Your task to perform on an android device: turn off location Image 0: 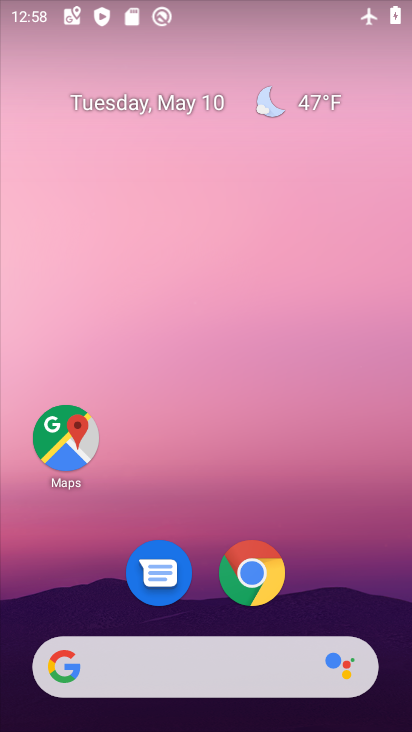
Step 0: drag from (276, 471) to (308, 393)
Your task to perform on an android device: turn off location Image 1: 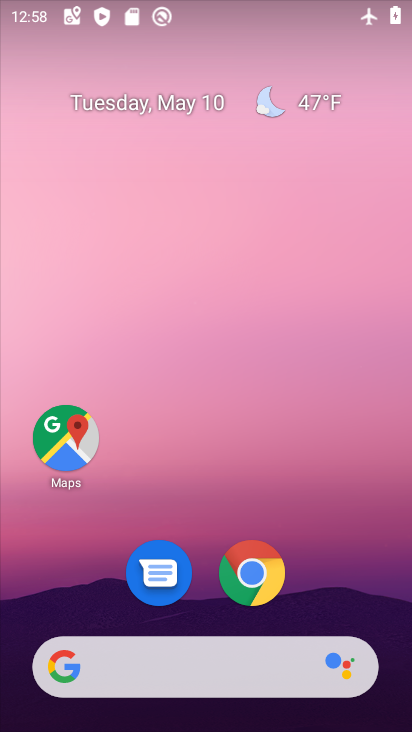
Step 1: drag from (192, 644) to (303, 222)
Your task to perform on an android device: turn off location Image 2: 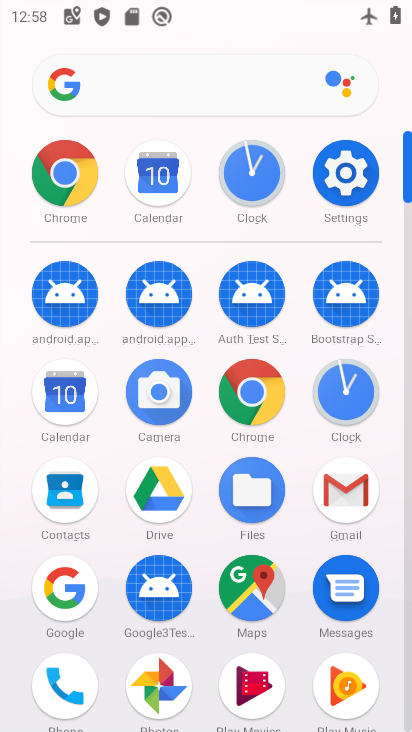
Step 2: click (344, 175)
Your task to perform on an android device: turn off location Image 3: 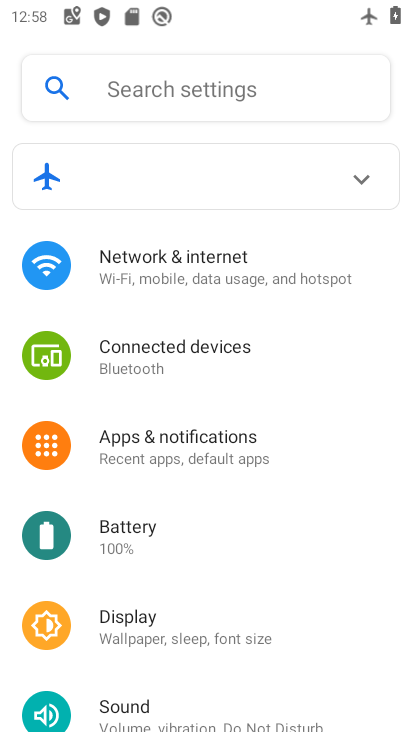
Step 3: drag from (224, 648) to (258, 158)
Your task to perform on an android device: turn off location Image 4: 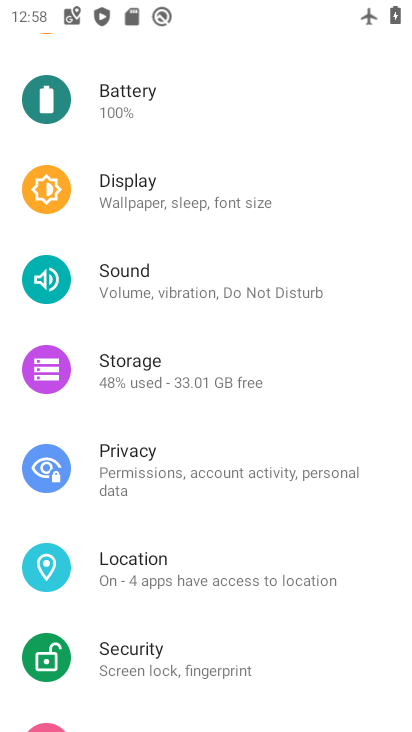
Step 4: drag from (215, 613) to (216, 379)
Your task to perform on an android device: turn off location Image 5: 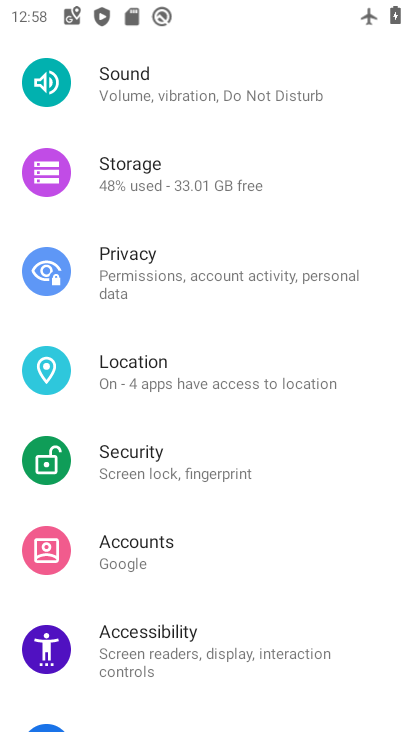
Step 5: click (223, 393)
Your task to perform on an android device: turn off location Image 6: 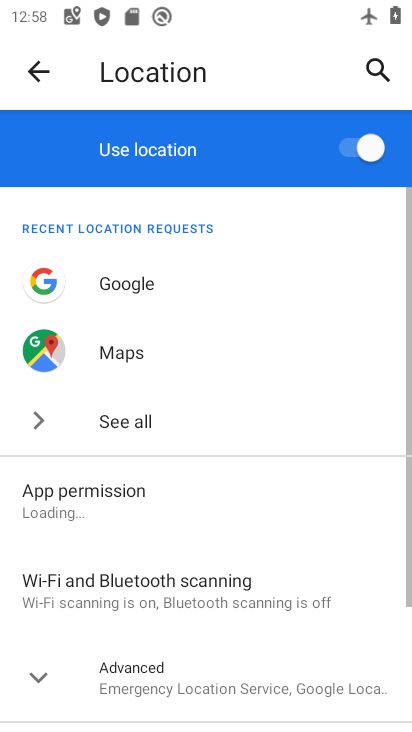
Step 6: drag from (228, 645) to (237, 537)
Your task to perform on an android device: turn off location Image 7: 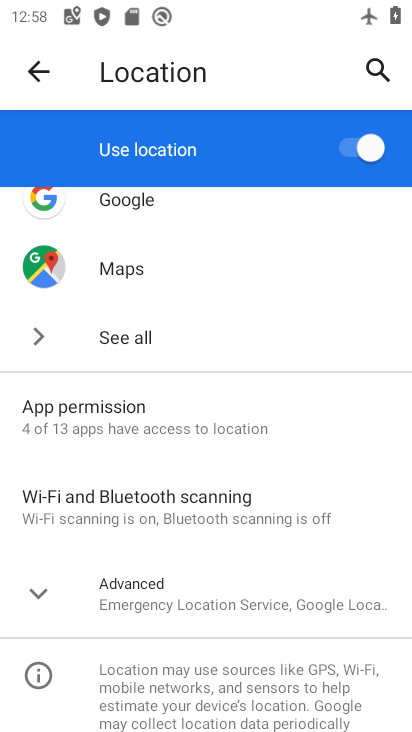
Step 7: click (353, 133)
Your task to perform on an android device: turn off location Image 8: 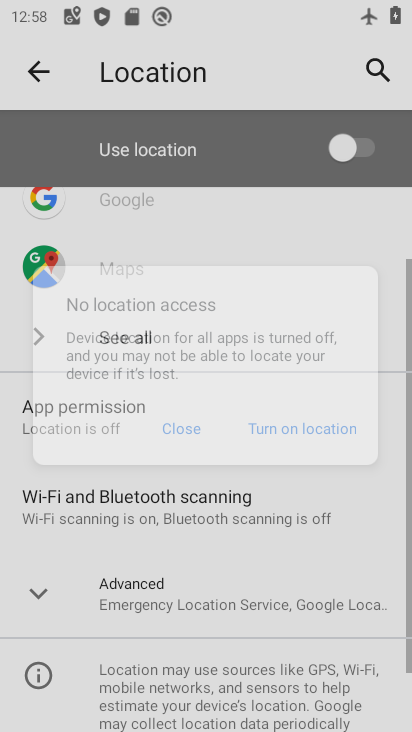
Step 8: task complete